Your task to perform on an android device: Do I have any events tomorrow? Image 0: 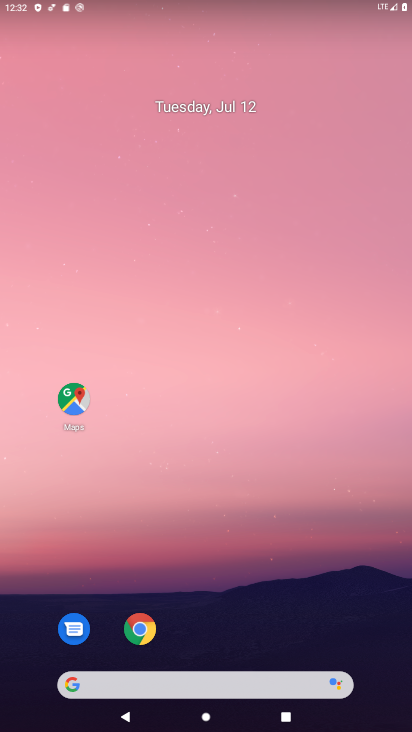
Step 0: drag from (222, 689) to (251, 34)
Your task to perform on an android device: Do I have any events tomorrow? Image 1: 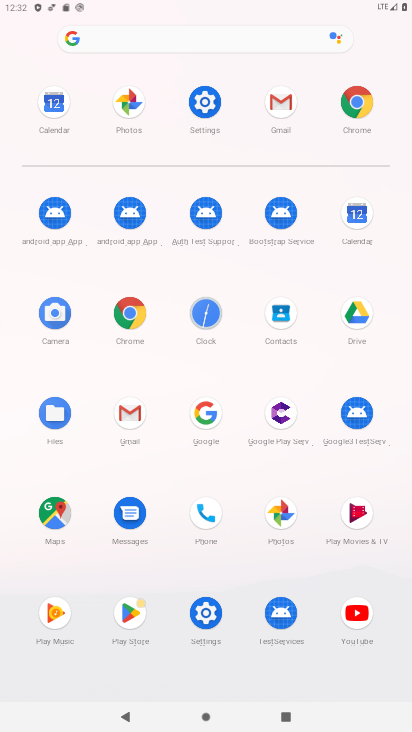
Step 1: click (358, 216)
Your task to perform on an android device: Do I have any events tomorrow? Image 2: 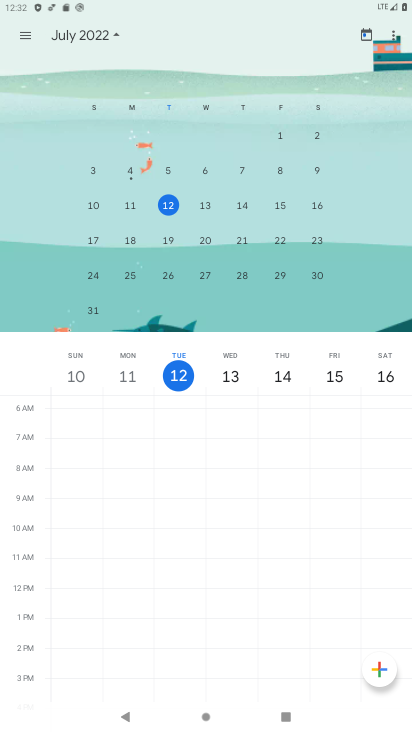
Step 2: click (211, 207)
Your task to perform on an android device: Do I have any events tomorrow? Image 3: 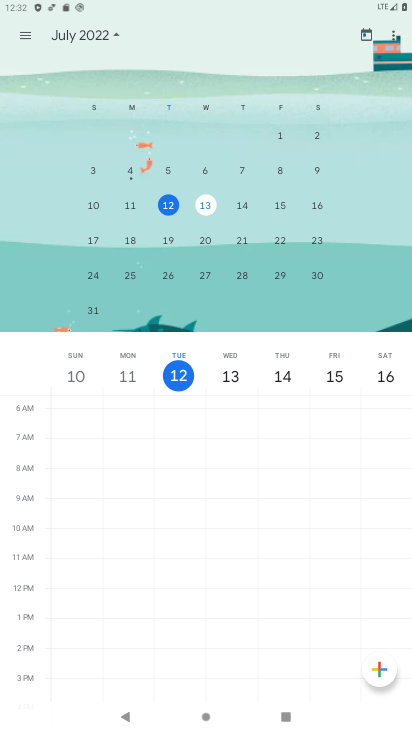
Step 3: task complete